Your task to perform on an android device: Go to Android settings Image 0: 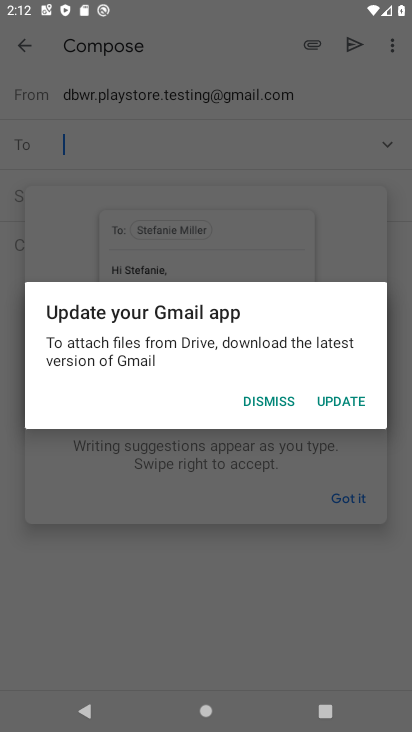
Step 0: press home button
Your task to perform on an android device: Go to Android settings Image 1: 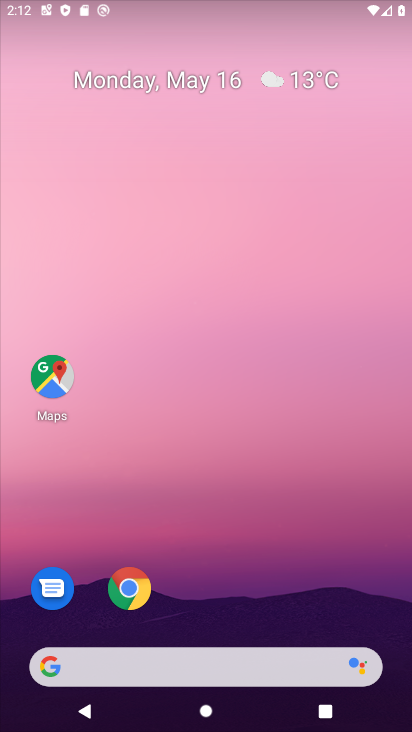
Step 1: drag from (319, 590) to (333, 65)
Your task to perform on an android device: Go to Android settings Image 2: 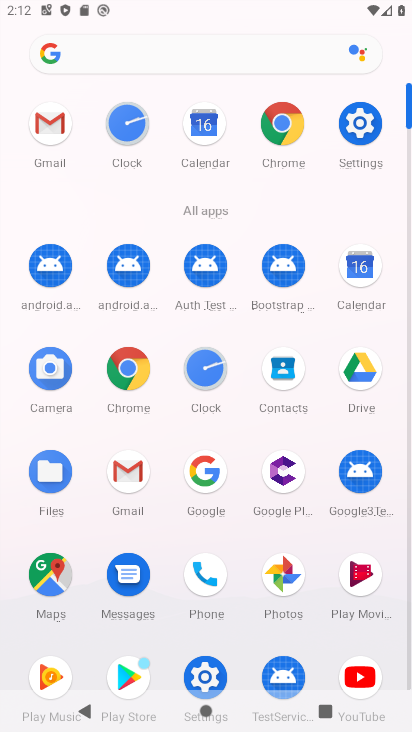
Step 2: click (352, 119)
Your task to perform on an android device: Go to Android settings Image 3: 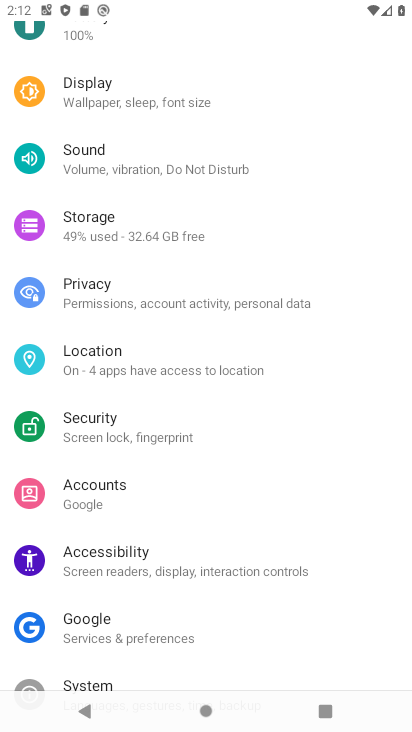
Step 3: drag from (206, 608) to (292, 141)
Your task to perform on an android device: Go to Android settings Image 4: 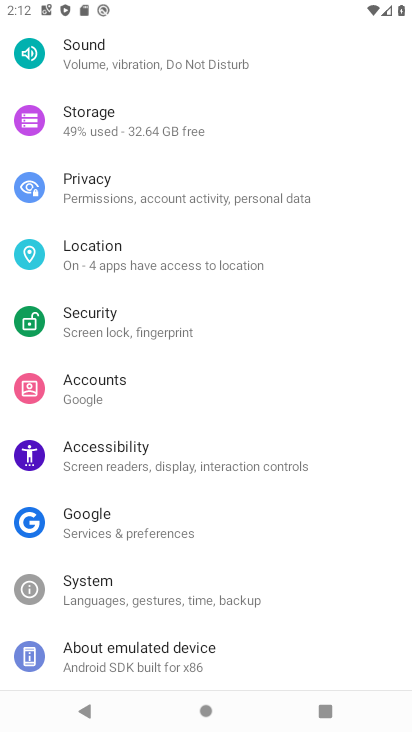
Step 4: click (265, 677)
Your task to perform on an android device: Go to Android settings Image 5: 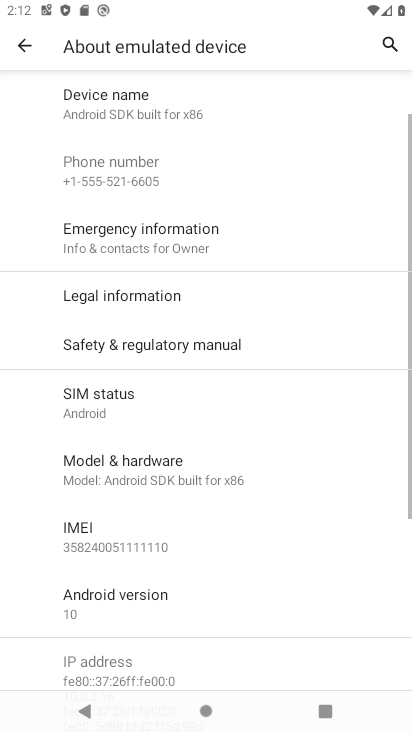
Step 5: task complete